Your task to perform on an android device: Open the stopwatch Image 0: 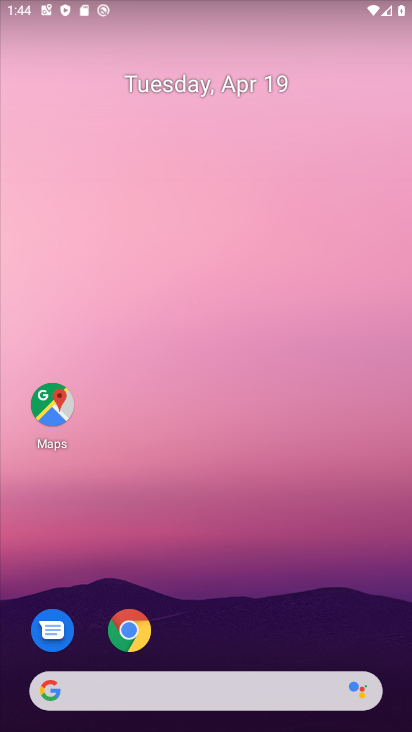
Step 0: drag from (265, 600) to (260, 140)
Your task to perform on an android device: Open the stopwatch Image 1: 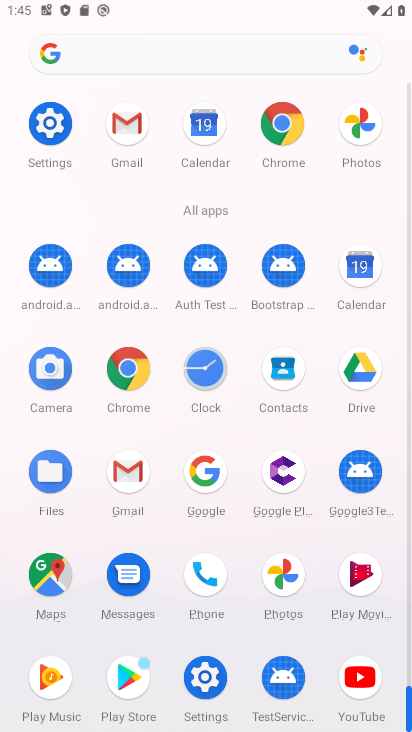
Step 1: click (202, 375)
Your task to perform on an android device: Open the stopwatch Image 2: 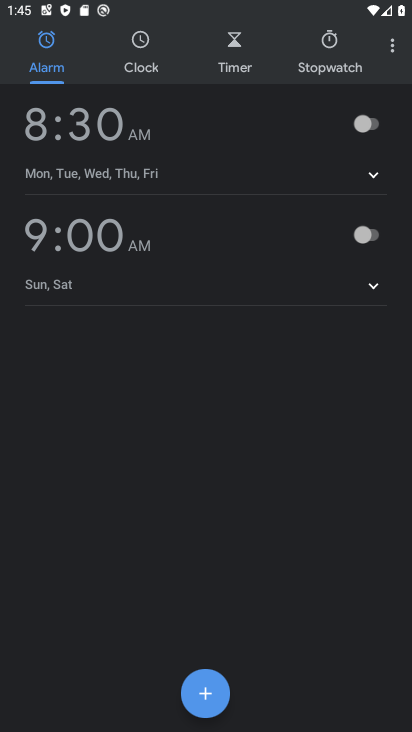
Step 2: click (334, 44)
Your task to perform on an android device: Open the stopwatch Image 3: 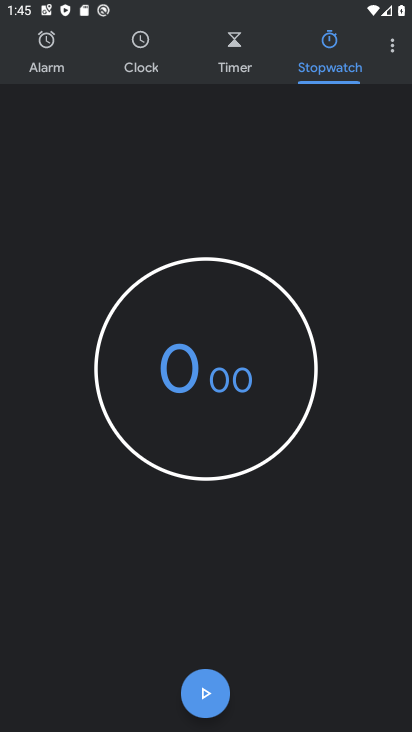
Step 3: click (334, 42)
Your task to perform on an android device: Open the stopwatch Image 4: 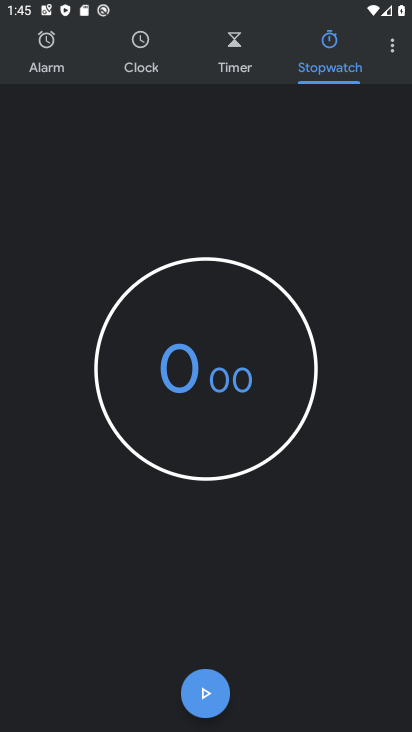
Step 4: click (205, 690)
Your task to perform on an android device: Open the stopwatch Image 5: 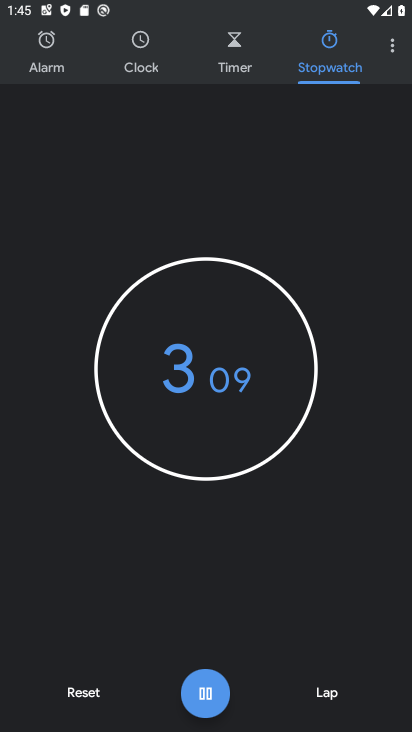
Step 5: task complete